Your task to perform on an android device: Clear the shopping cart on newegg.com. Add macbook air to the cart on newegg.com, then select checkout. Image 0: 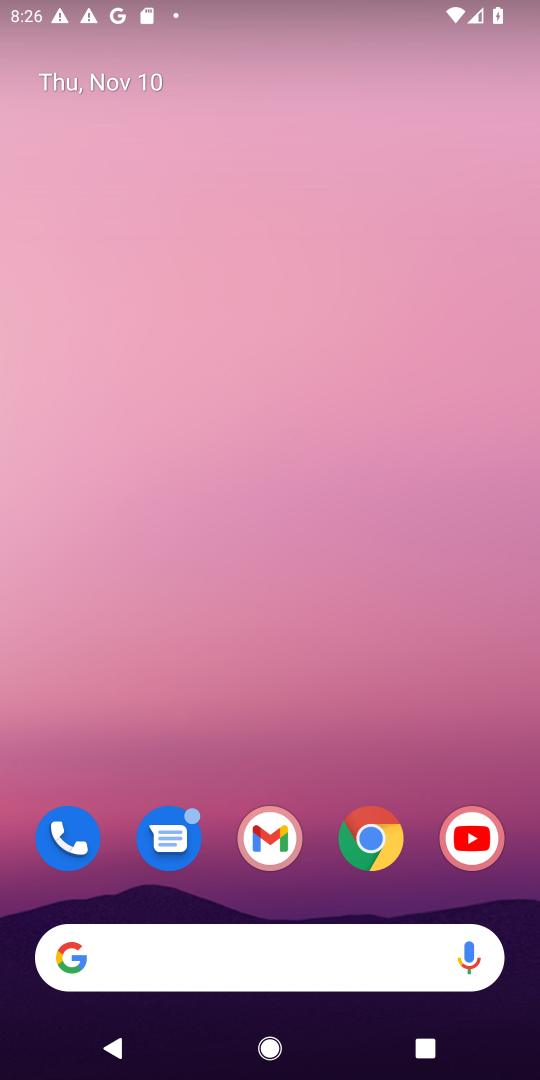
Step 0: drag from (300, 899) to (324, 0)
Your task to perform on an android device: Clear the shopping cart on newegg.com. Add macbook air to the cart on newegg.com, then select checkout. Image 1: 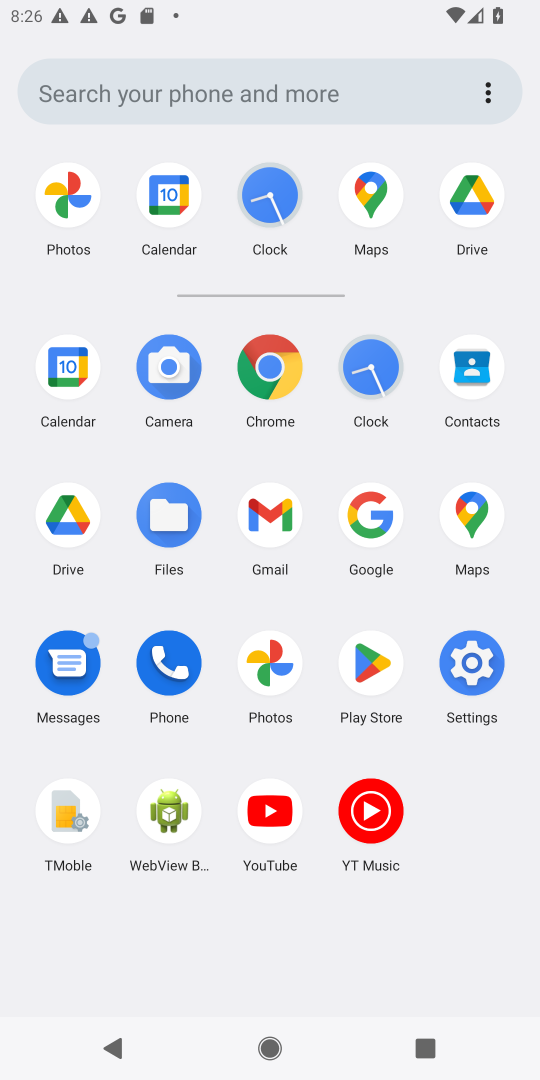
Step 1: click (264, 380)
Your task to perform on an android device: Clear the shopping cart on newegg.com. Add macbook air to the cart on newegg.com, then select checkout. Image 2: 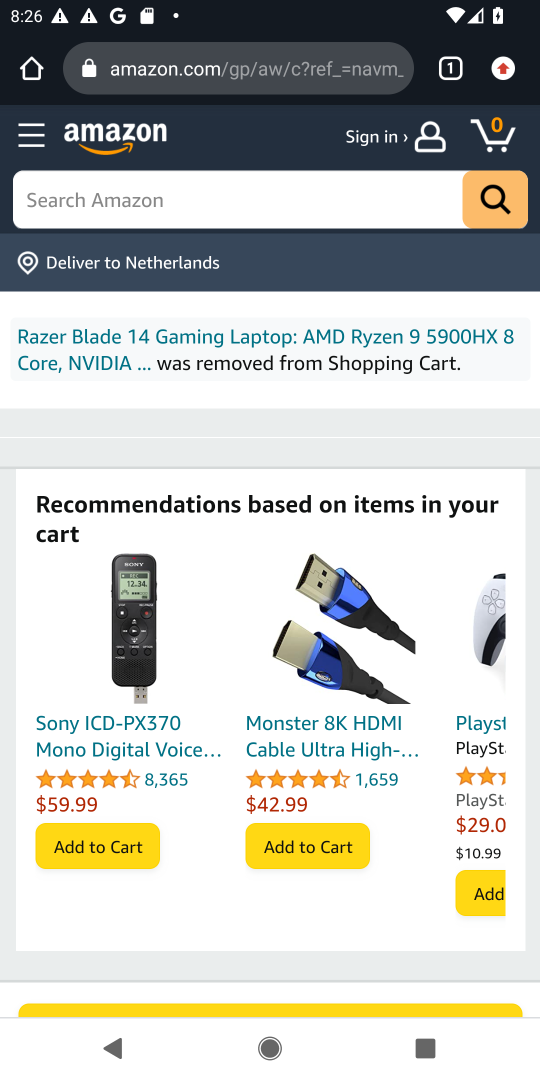
Step 2: click (307, 64)
Your task to perform on an android device: Clear the shopping cart on newegg.com. Add macbook air to the cart on newegg.com, then select checkout. Image 3: 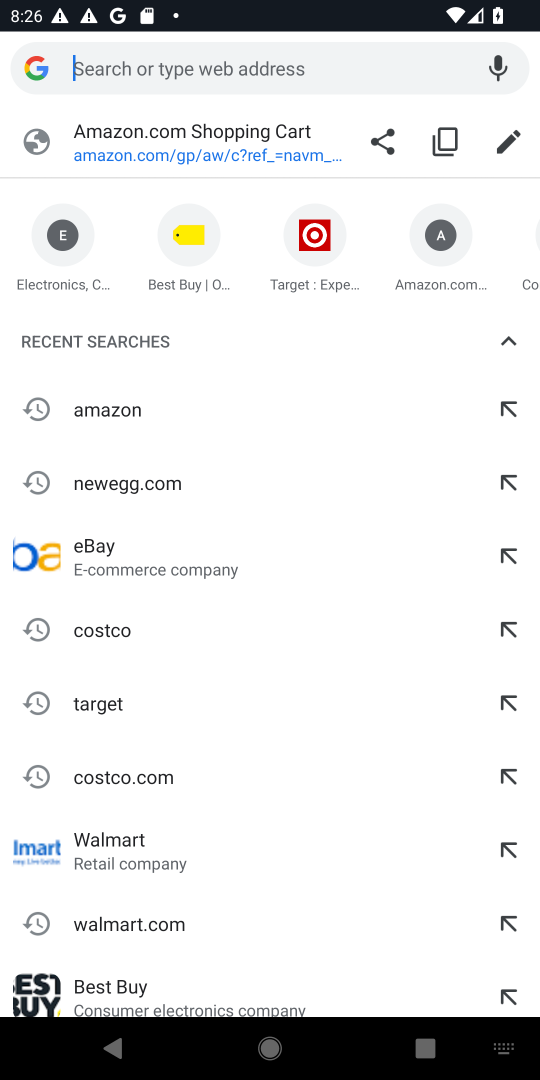
Step 3: type "newegg.com"
Your task to perform on an android device: Clear the shopping cart on newegg.com. Add macbook air to the cart on newegg.com, then select checkout. Image 4: 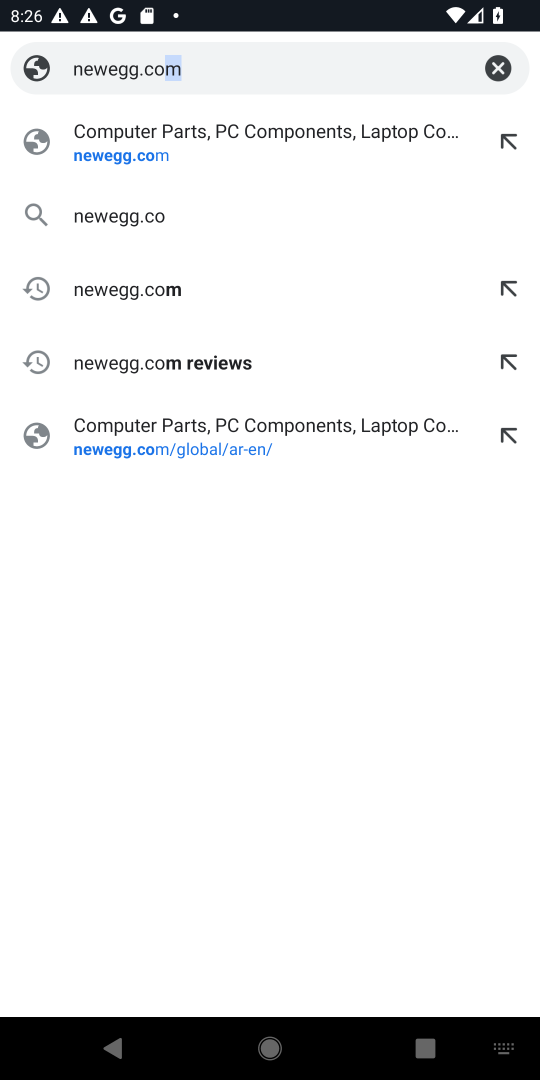
Step 4: press enter
Your task to perform on an android device: Clear the shopping cart on newegg.com. Add macbook air to the cart on newegg.com, then select checkout. Image 5: 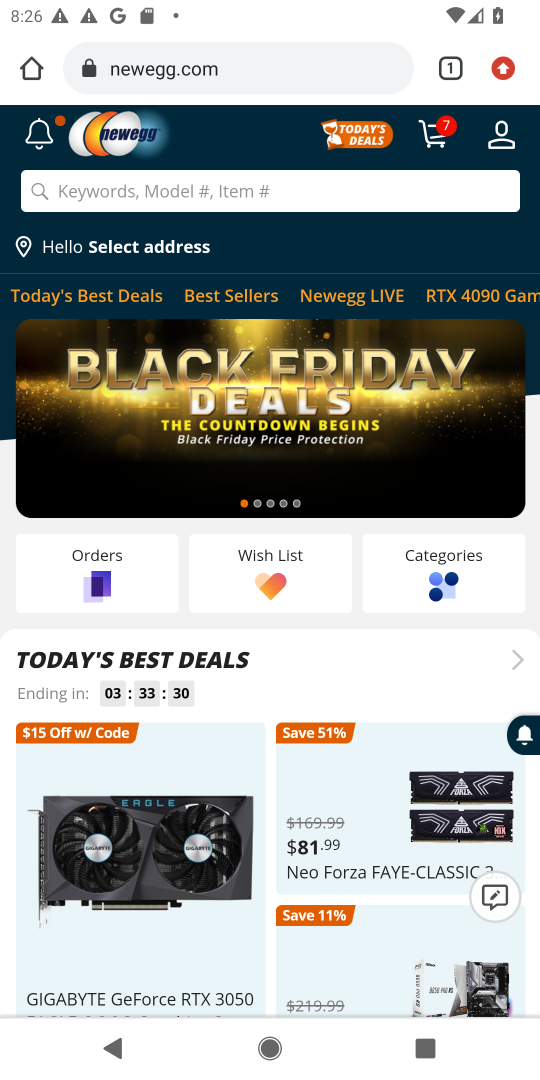
Step 5: click (446, 124)
Your task to perform on an android device: Clear the shopping cart on newegg.com. Add macbook air to the cart on newegg.com, then select checkout. Image 6: 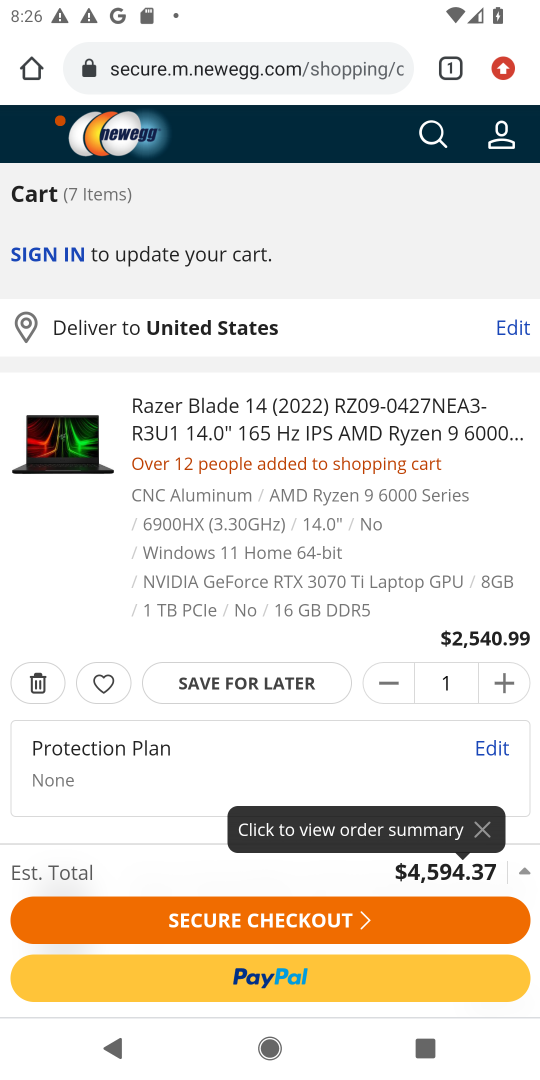
Step 6: click (38, 690)
Your task to perform on an android device: Clear the shopping cart on newegg.com. Add macbook air to the cart on newegg.com, then select checkout. Image 7: 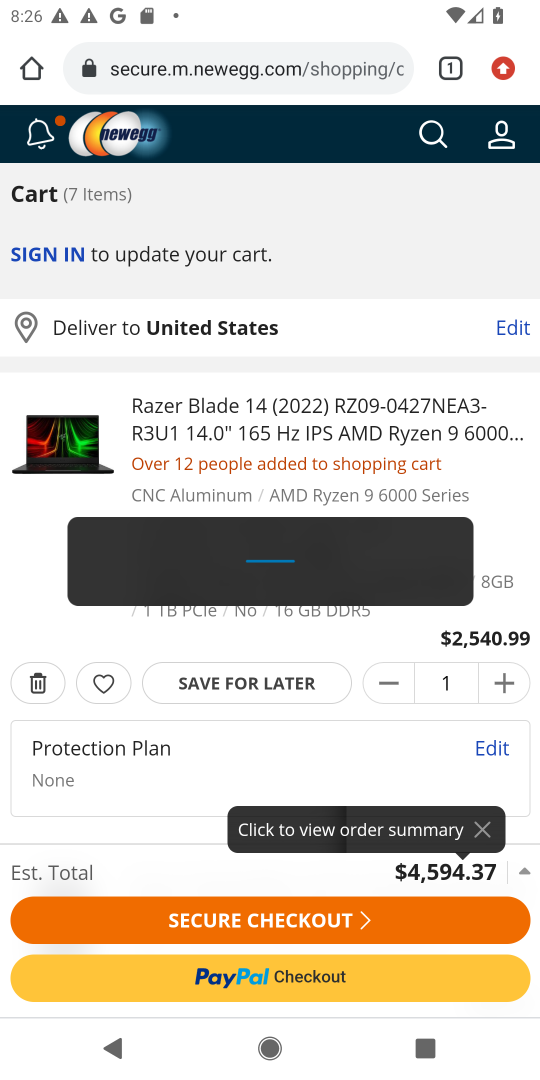
Step 7: click (39, 690)
Your task to perform on an android device: Clear the shopping cart on newegg.com. Add macbook air to the cart on newegg.com, then select checkout. Image 8: 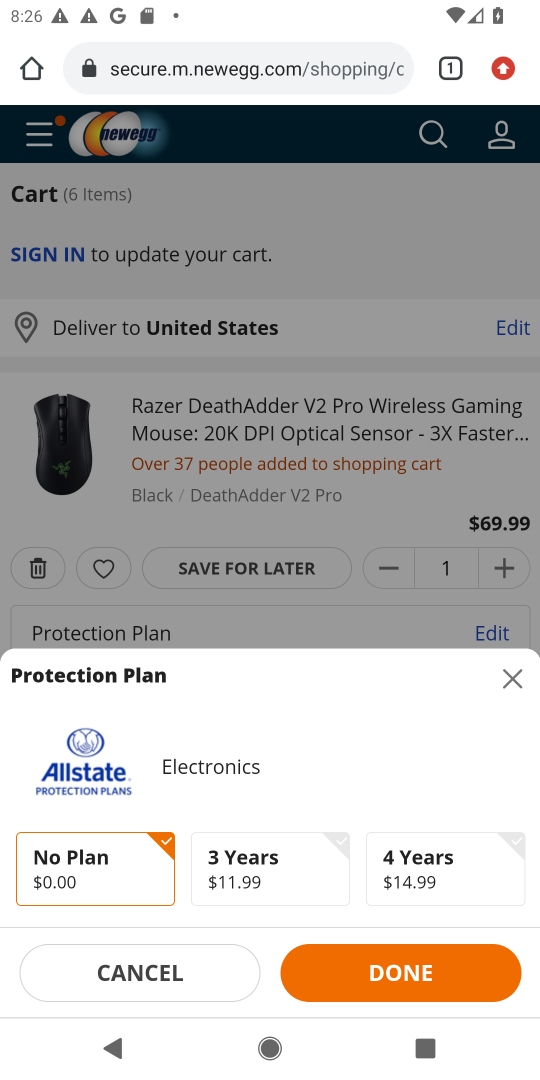
Step 8: click (43, 572)
Your task to perform on an android device: Clear the shopping cart on newegg.com. Add macbook air to the cart on newegg.com, then select checkout. Image 9: 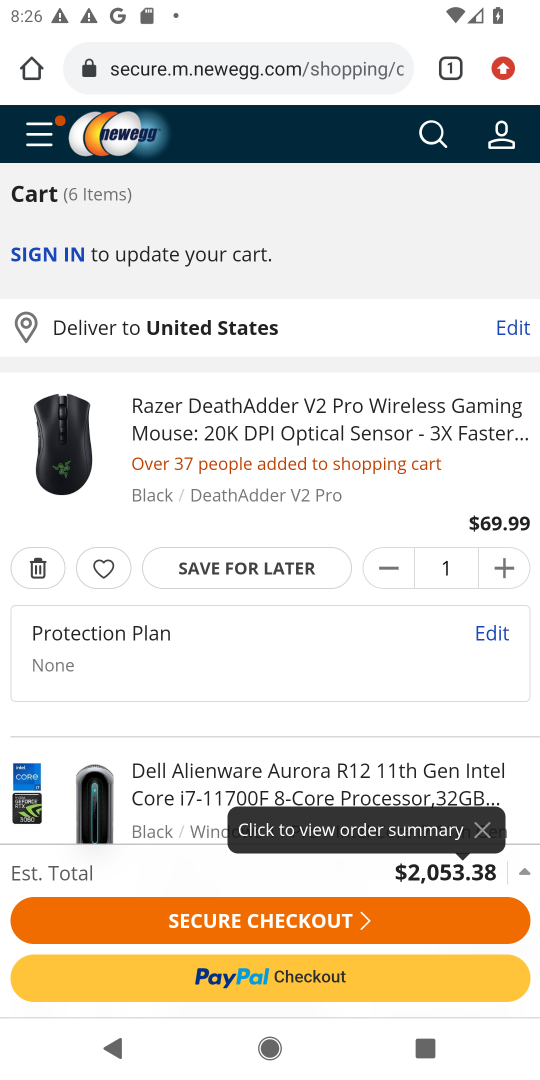
Step 9: click (43, 572)
Your task to perform on an android device: Clear the shopping cart on newegg.com. Add macbook air to the cart on newegg.com, then select checkout. Image 10: 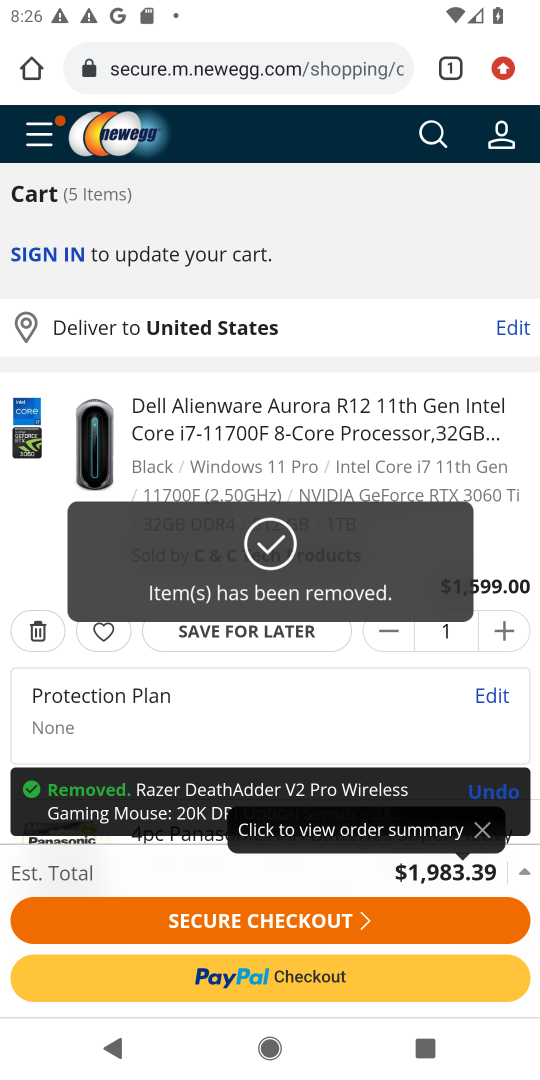
Step 10: click (34, 624)
Your task to perform on an android device: Clear the shopping cart on newegg.com. Add macbook air to the cart on newegg.com, then select checkout. Image 11: 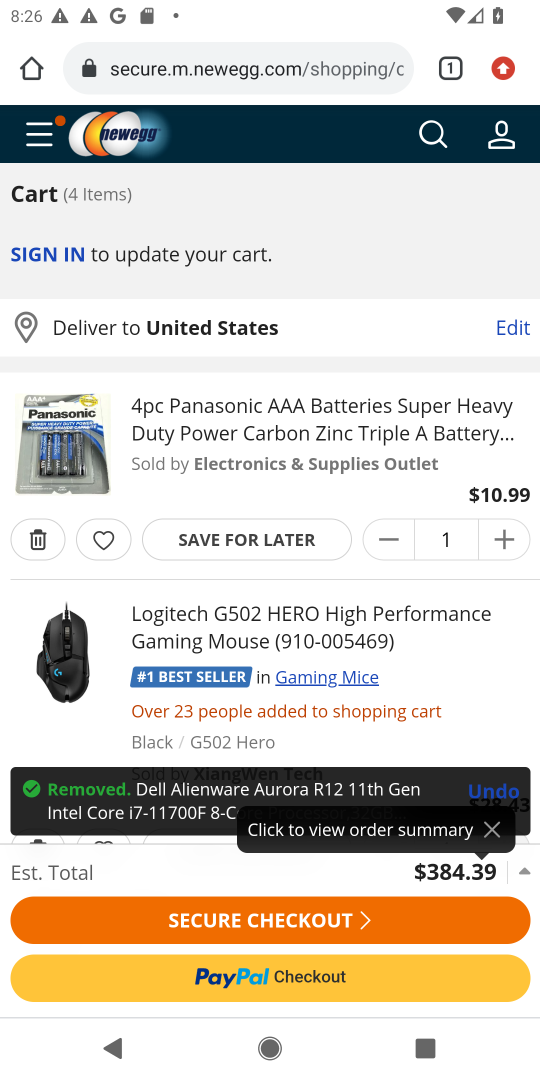
Step 11: click (43, 541)
Your task to perform on an android device: Clear the shopping cart on newegg.com. Add macbook air to the cart on newegg.com, then select checkout. Image 12: 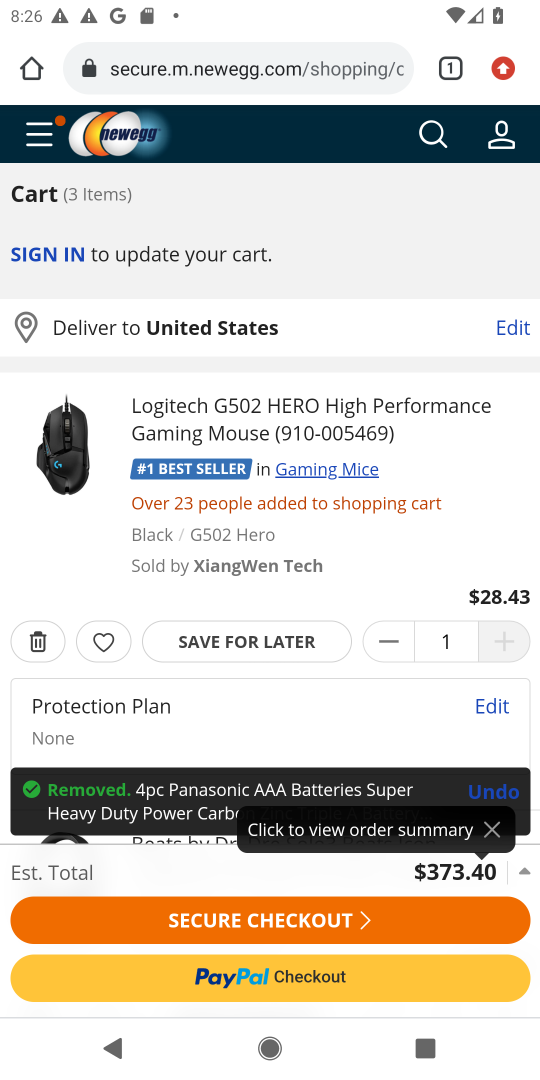
Step 12: click (29, 631)
Your task to perform on an android device: Clear the shopping cart on newegg.com. Add macbook air to the cart on newegg.com, then select checkout. Image 13: 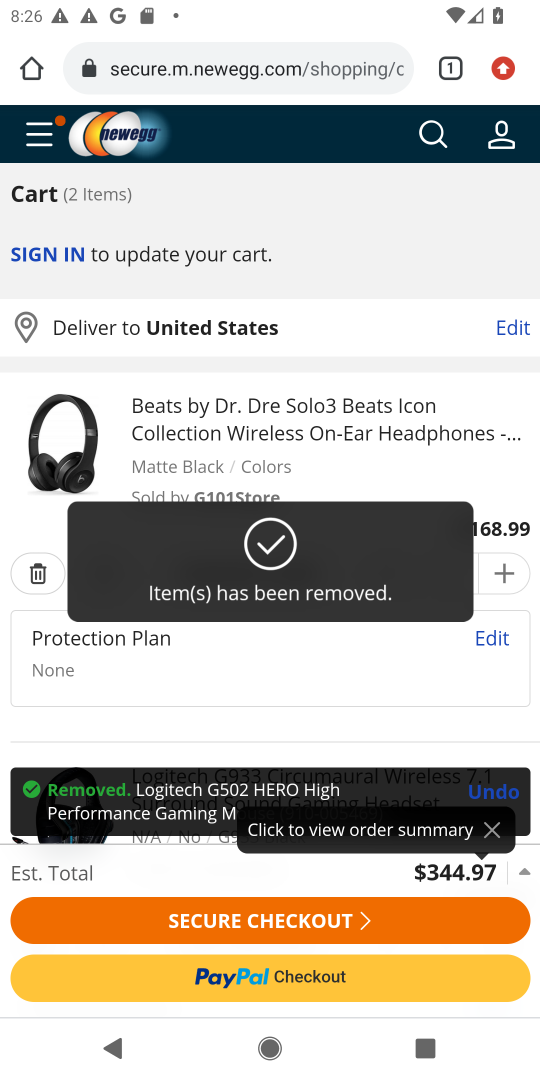
Step 13: click (40, 571)
Your task to perform on an android device: Clear the shopping cart on newegg.com. Add macbook air to the cart on newegg.com, then select checkout. Image 14: 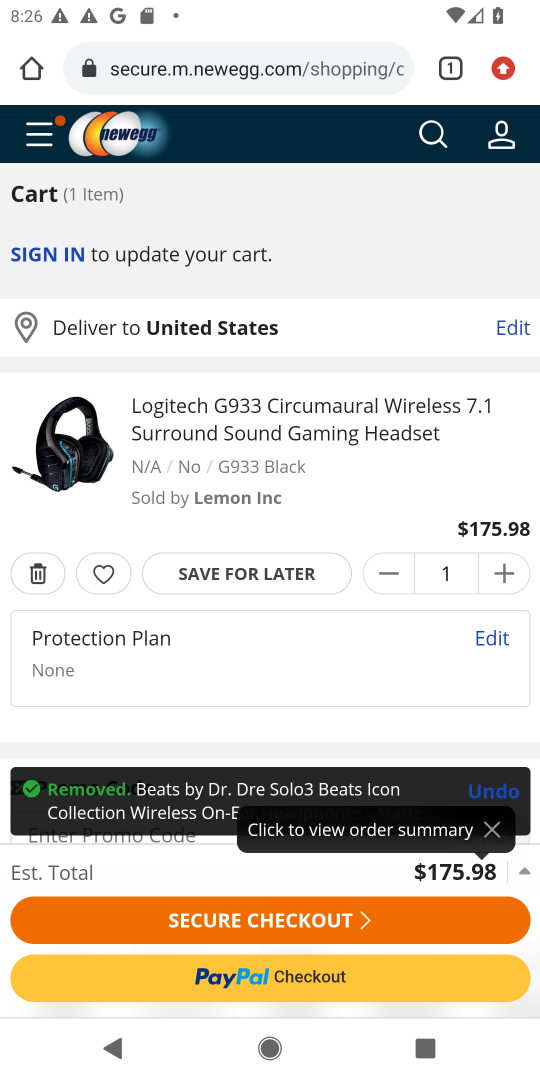
Step 14: click (40, 571)
Your task to perform on an android device: Clear the shopping cart on newegg.com. Add macbook air to the cart on newegg.com, then select checkout. Image 15: 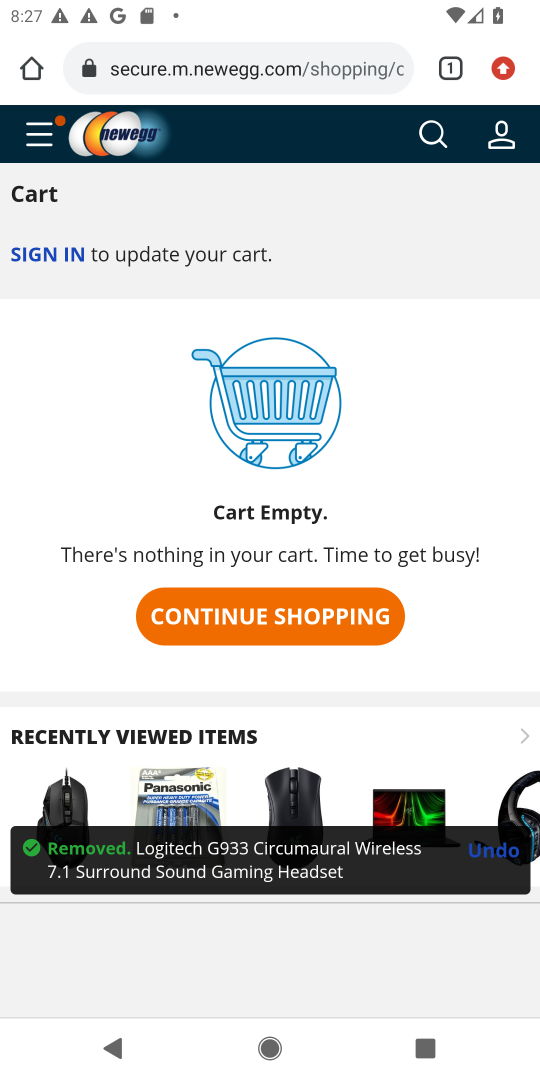
Step 15: click (430, 145)
Your task to perform on an android device: Clear the shopping cart on newegg.com. Add macbook air to the cart on newegg.com, then select checkout. Image 16: 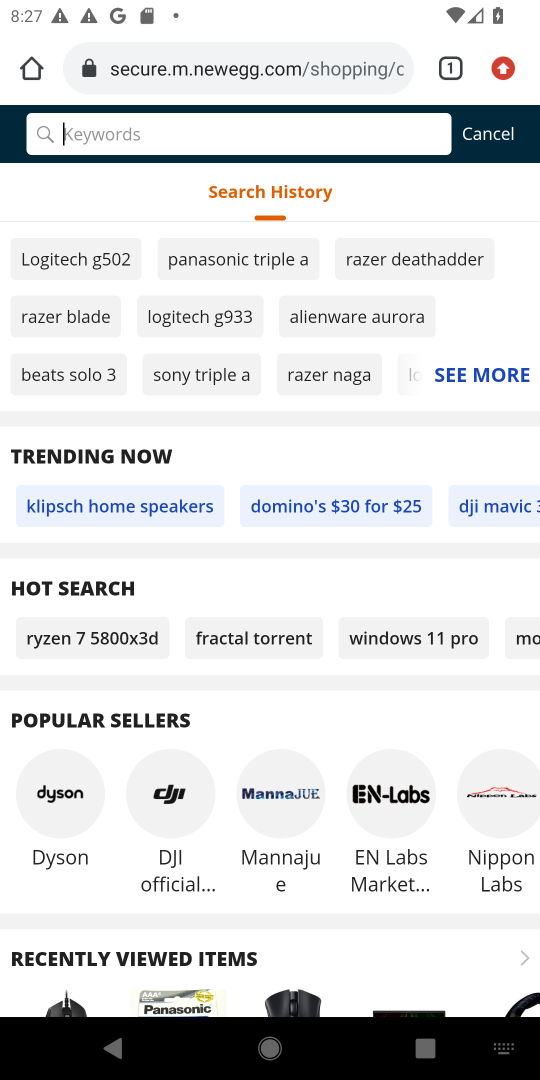
Step 16: type "macbook air"
Your task to perform on an android device: Clear the shopping cart on newegg.com. Add macbook air to the cart on newegg.com, then select checkout. Image 17: 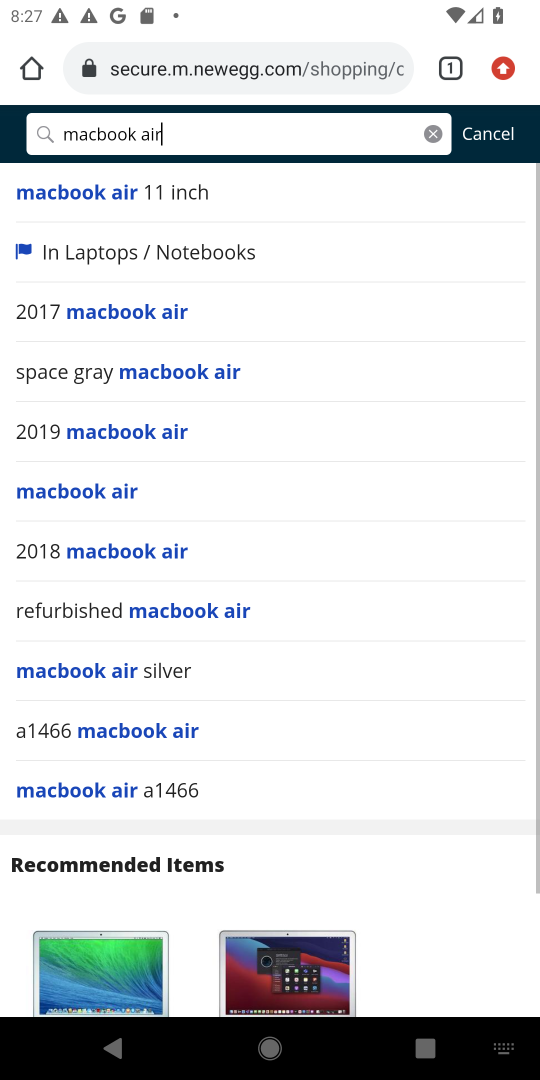
Step 17: press enter
Your task to perform on an android device: Clear the shopping cart on newegg.com. Add macbook air to the cart on newegg.com, then select checkout. Image 18: 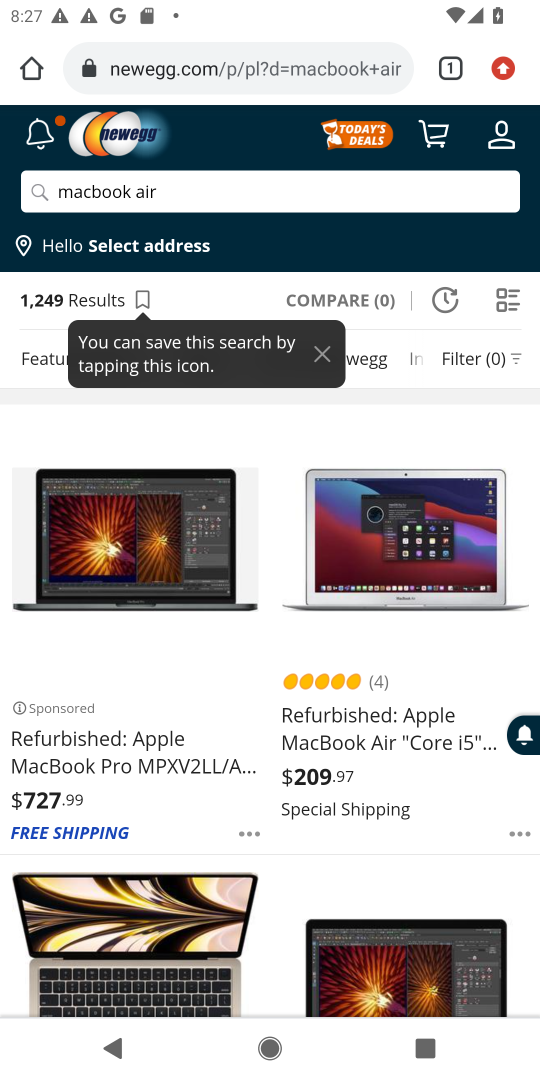
Step 18: click (394, 734)
Your task to perform on an android device: Clear the shopping cart on newegg.com. Add macbook air to the cart on newegg.com, then select checkout. Image 19: 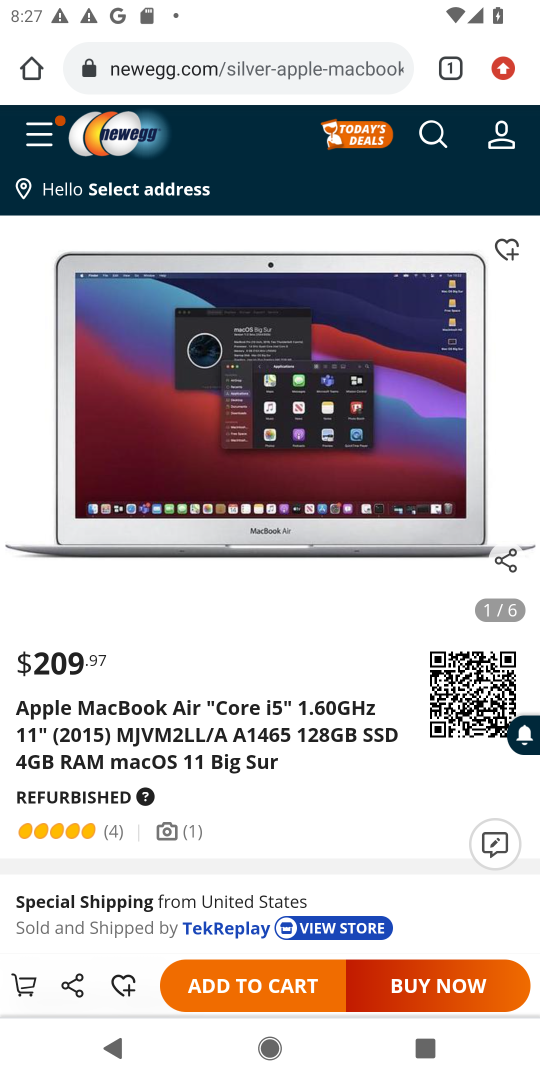
Step 19: click (265, 980)
Your task to perform on an android device: Clear the shopping cart on newegg.com. Add macbook air to the cart on newegg.com, then select checkout. Image 20: 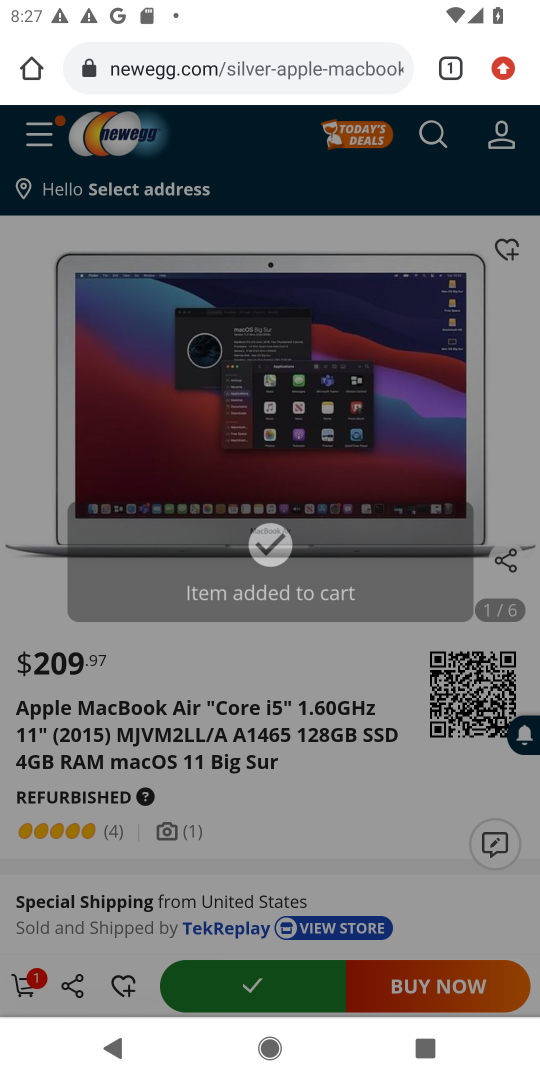
Step 20: click (18, 978)
Your task to perform on an android device: Clear the shopping cart on newegg.com. Add macbook air to the cart on newegg.com, then select checkout. Image 21: 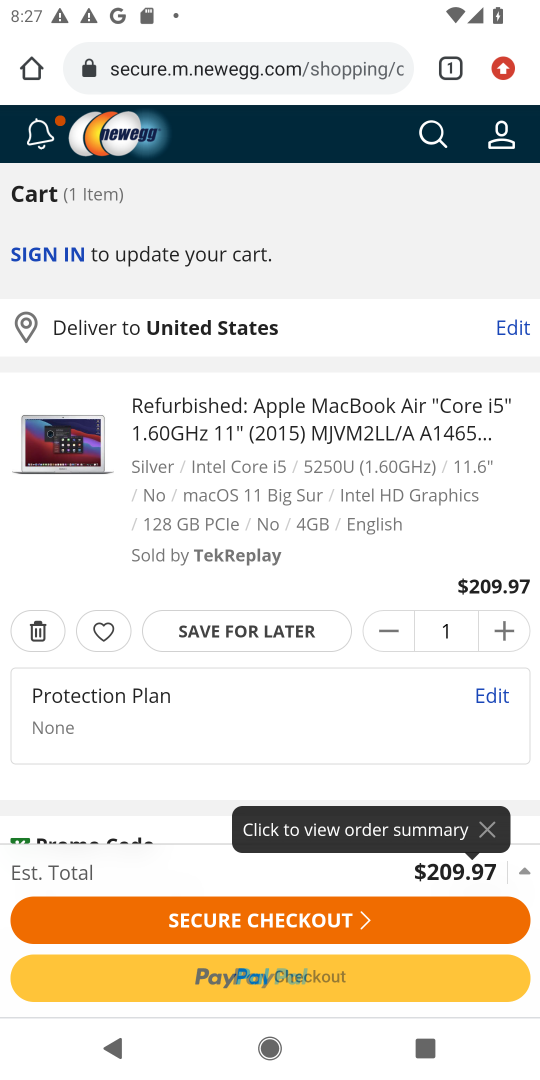
Step 21: click (209, 917)
Your task to perform on an android device: Clear the shopping cart on newegg.com. Add macbook air to the cart on newegg.com, then select checkout. Image 22: 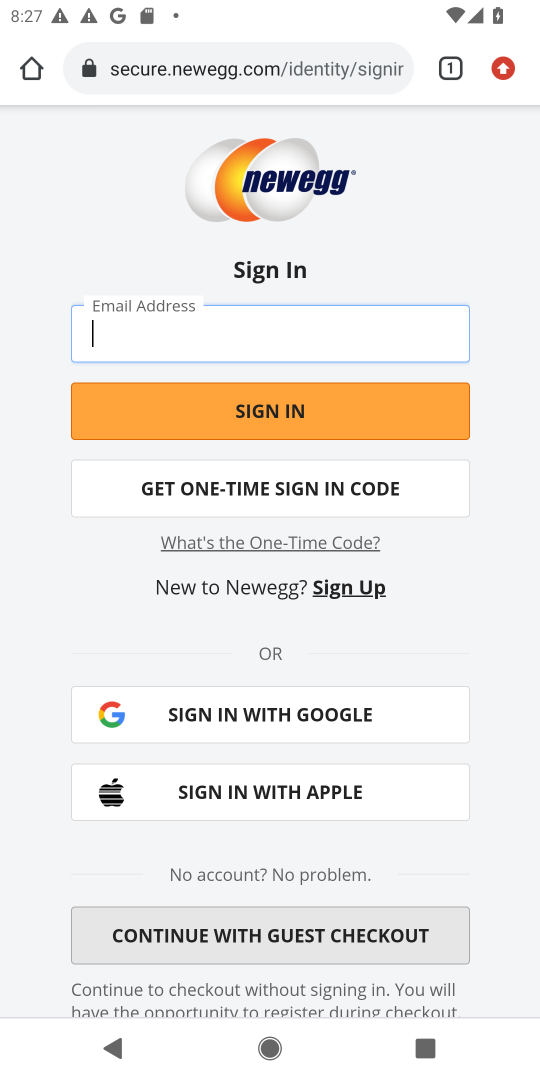
Step 22: task complete